Your task to perform on an android device: turn on data saver in the chrome app Image 0: 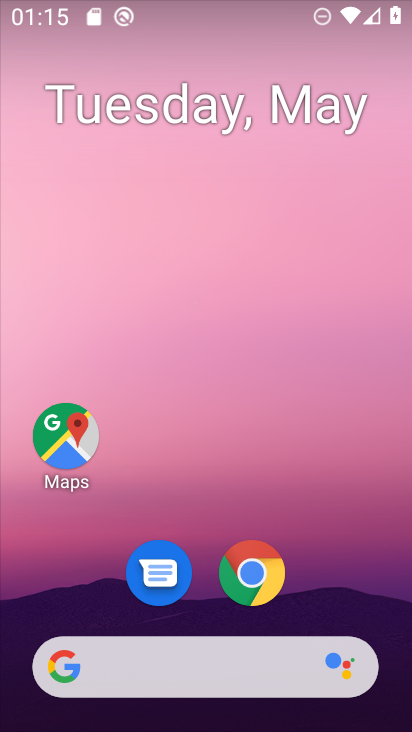
Step 0: click (275, 580)
Your task to perform on an android device: turn on data saver in the chrome app Image 1: 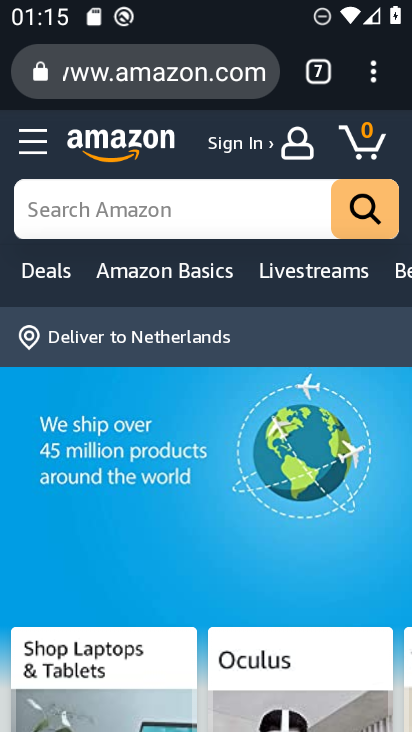
Step 1: click (375, 61)
Your task to perform on an android device: turn on data saver in the chrome app Image 2: 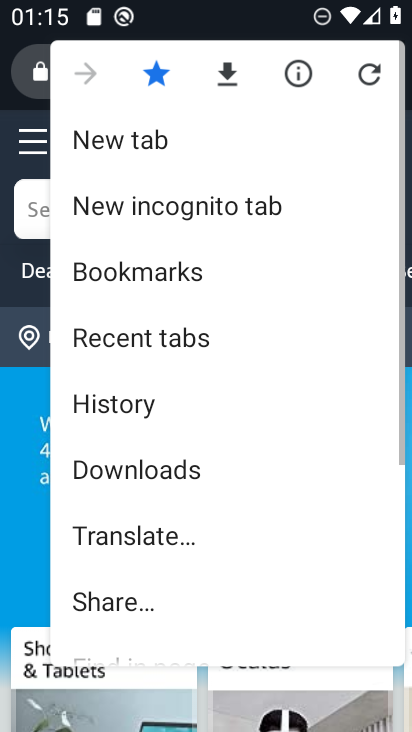
Step 2: drag from (235, 526) to (190, 163)
Your task to perform on an android device: turn on data saver in the chrome app Image 3: 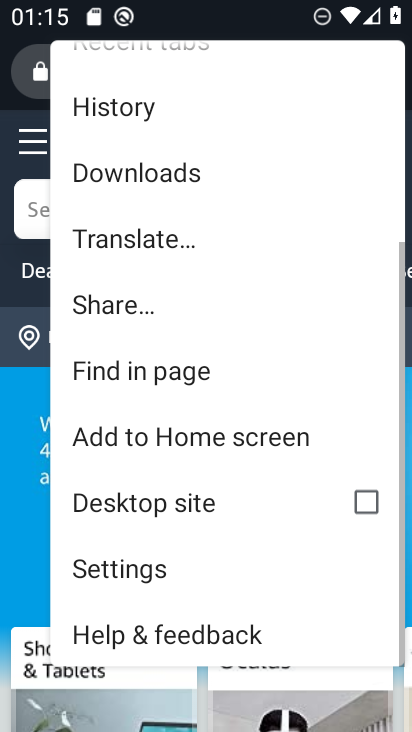
Step 3: click (173, 566)
Your task to perform on an android device: turn on data saver in the chrome app Image 4: 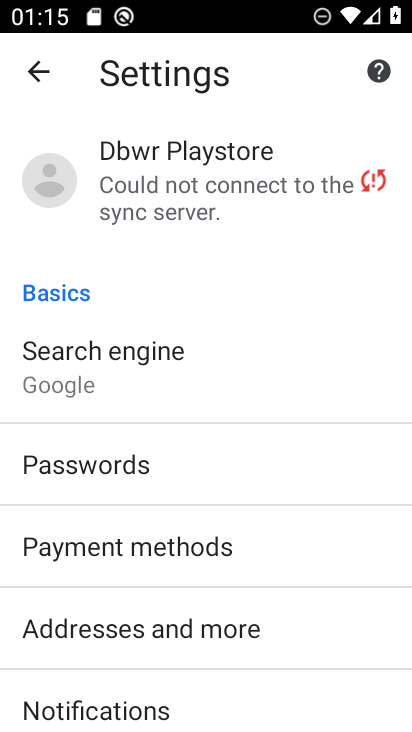
Step 4: drag from (275, 617) to (246, 177)
Your task to perform on an android device: turn on data saver in the chrome app Image 5: 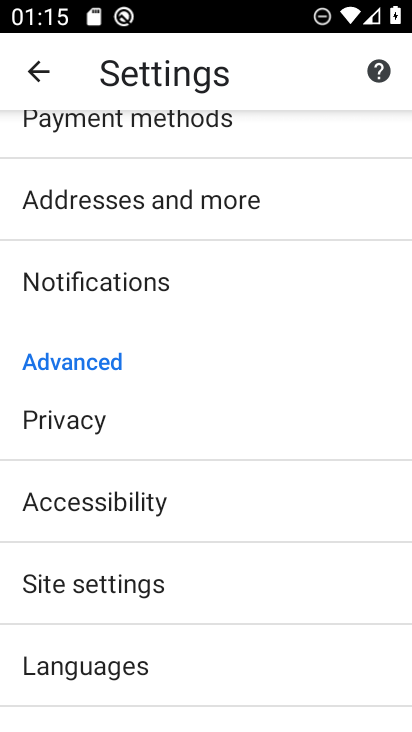
Step 5: drag from (231, 637) to (232, 293)
Your task to perform on an android device: turn on data saver in the chrome app Image 6: 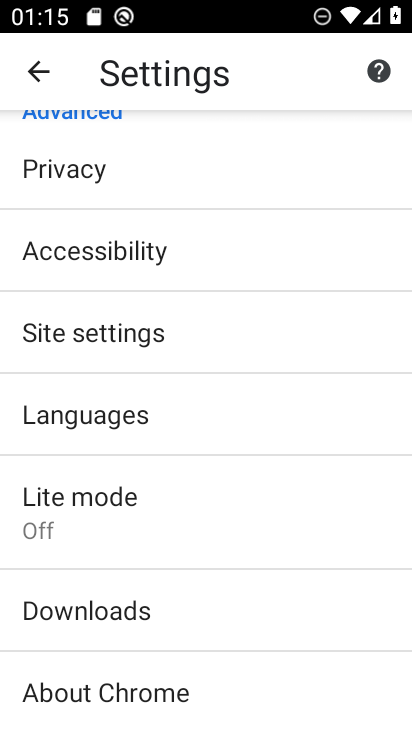
Step 6: click (107, 506)
Your task to perform on an android device: turn on data saver in the chrome app Image 7: 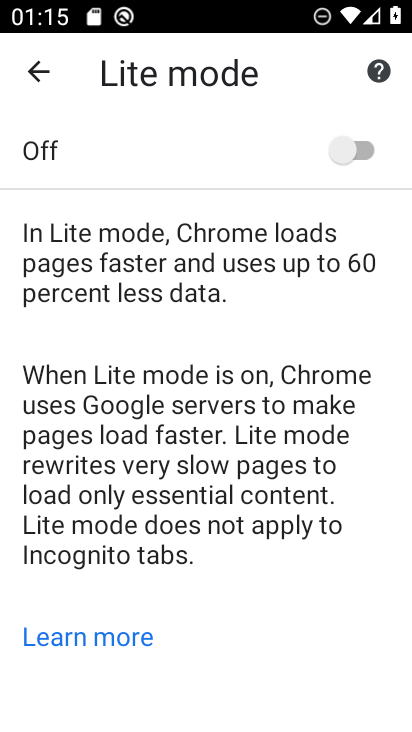
Step 7: click (349, 148)
Your task to perform on an android device: turn on data saver in the chrome app Image 8: 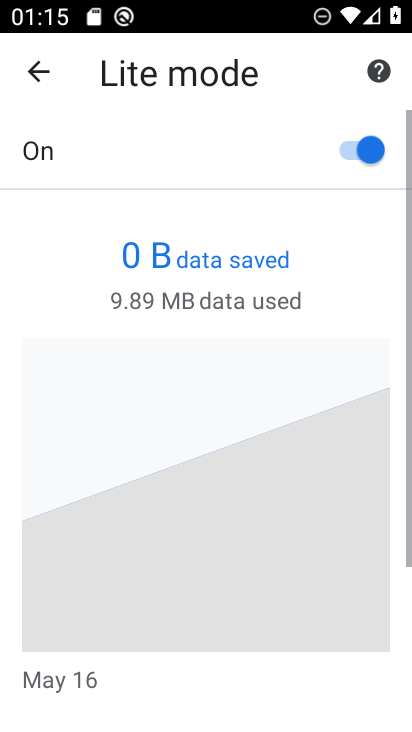
Step 8: task complete